Your task to perform on an android device: delete browsing data in the chrome app Image 0: 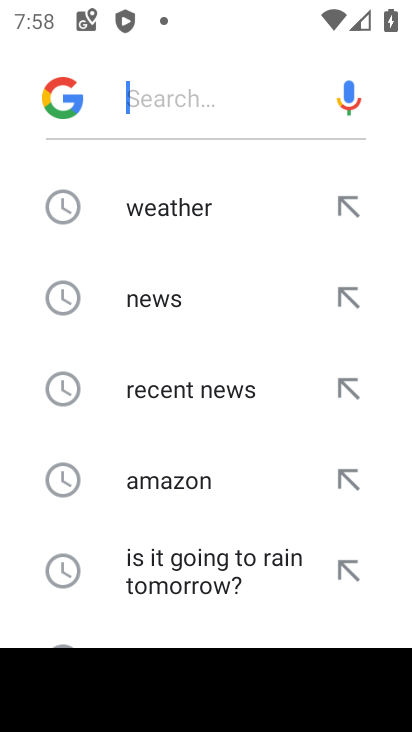
Step 0: press home button
Your task to perform on an android device: delete browsing data in the chrome app Image 1: 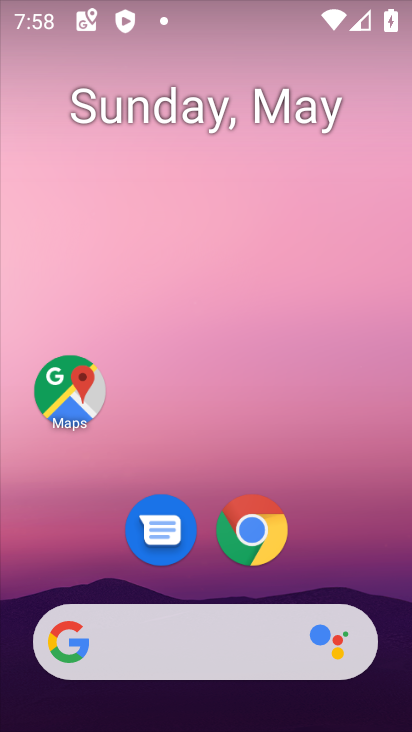
Step 1: click (248, 534)
Your task to perform on an android device: delete browsing data in the chrome app Image 2: 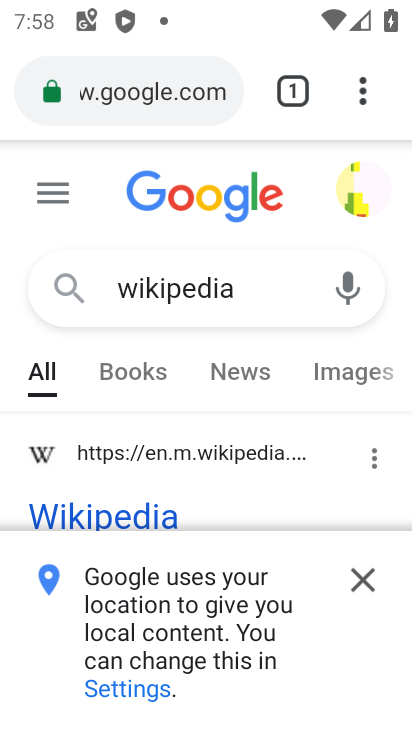
Step 2: click (362, 91)
Your task to perform on an android device: delete browsing data in the chrome app Image 3: 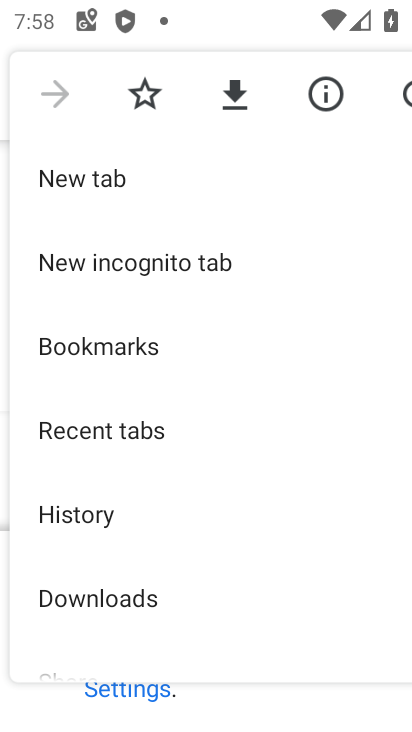
Step 3: drag from (223, 602) to (207, 51)
Your task to perform on an android device: delete browsing data in the chrome app Image 4: 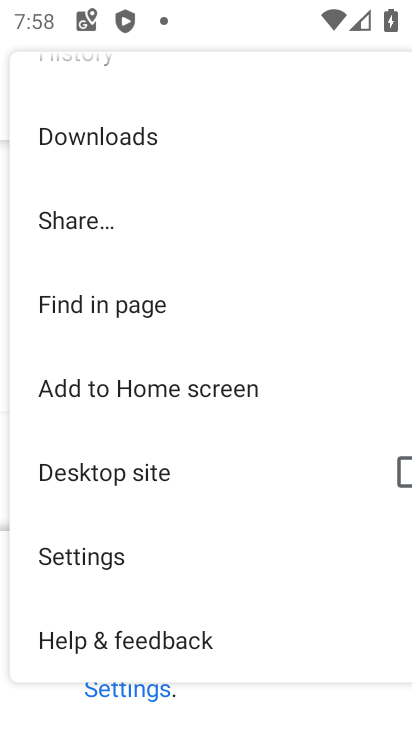
Step 4: drag from (188, 575) to (193, 183)
Your task to perform on an android device: delete browsing data in the chrome app Image 5: 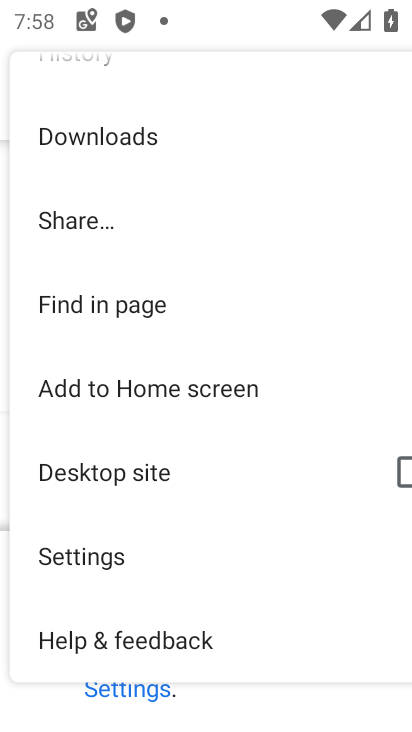
Step 5: click (82, 565)
Your task to perform on an android device: delete browsing data in the chrome app Image 6: 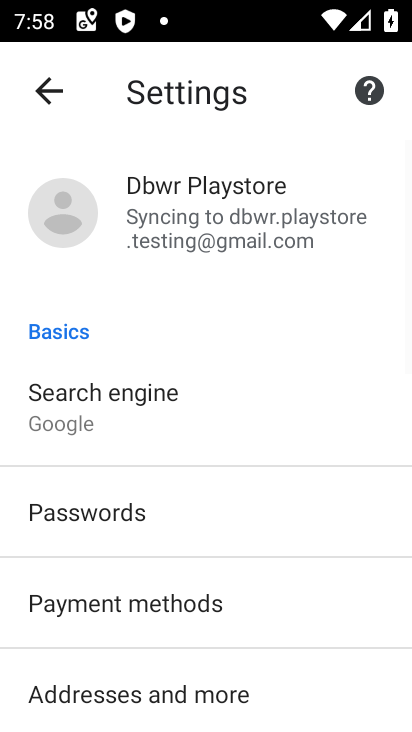
Step 6: drag from (148, 654) to (139, 185)
Your task to perform on an android device: delete browsing data in the chrome app Image 7: 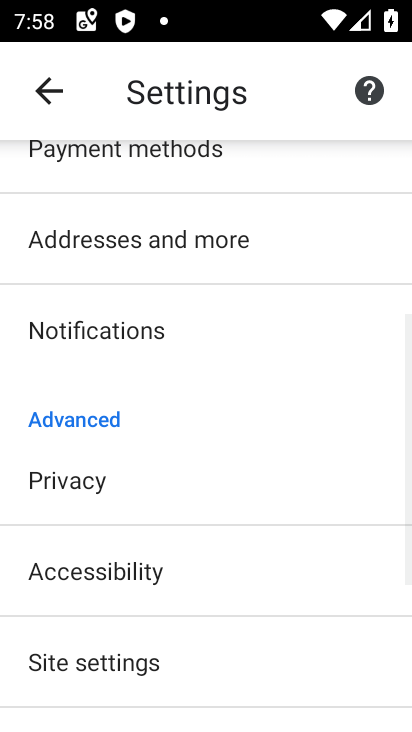
Step 7: drag from (147, 599) to (119, 161)
Your task to perform on an android device: delete browsing data in the chrome app Image 8: 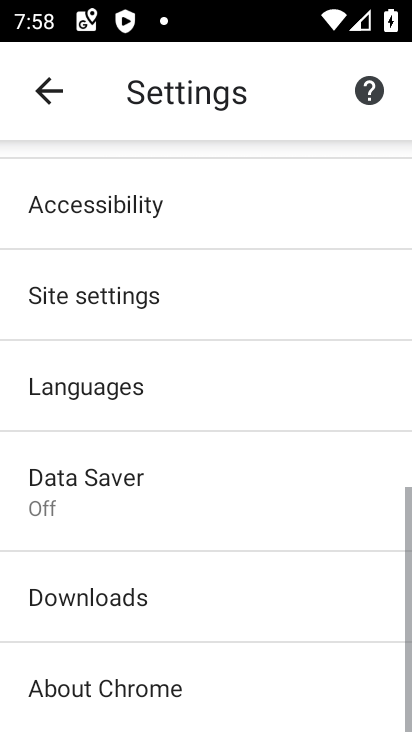
Step 8: drag from (166, 578) to (140, 227)
Your task to perform on an android device: delete browsing data in the chrome app Image 9: 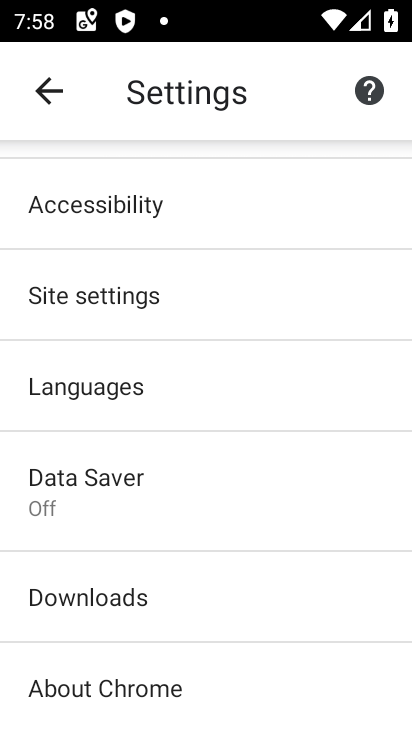
Step 9: drag from (168, 340) to (169, 561)
Your task to perform on an android device: delete browsing data in the chrome app Image 10: 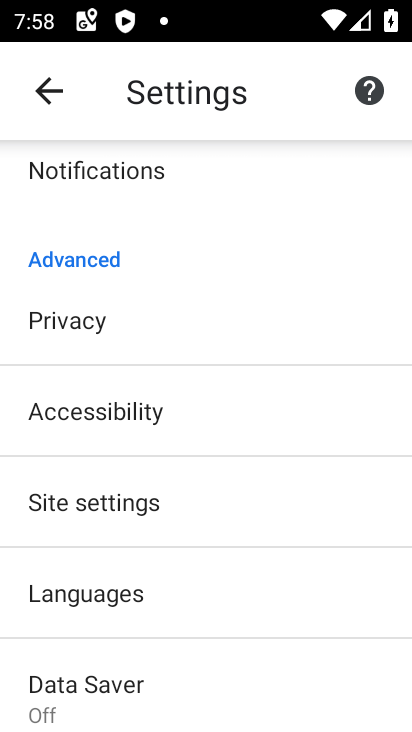
Step 10: click (47, 329)
Your task to perform on an android device: delete browsing data in the chrome app Image 11: 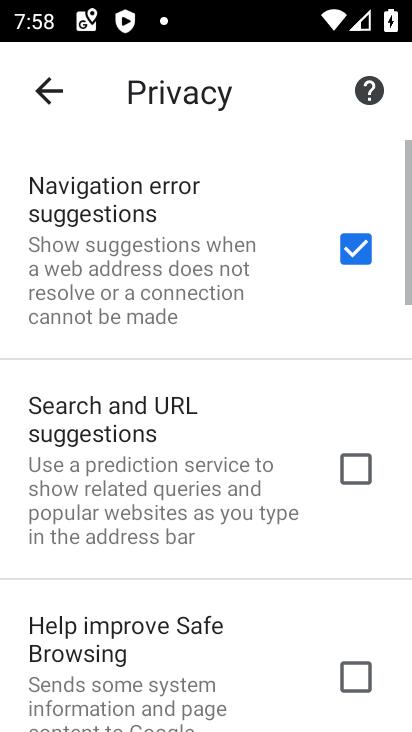
Step 11: drag from (154, 662) to (156, 170)
Your task to perform on an android device: delete browsing data in the chrome app Image 12: 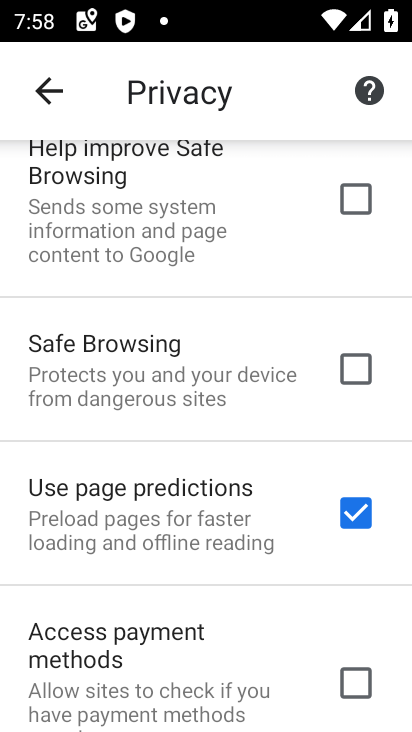
Step 12: drag from (138, 603) to (119, 148)
Your task to perform on an android device: delete browsing data in the chrome app Image 13: 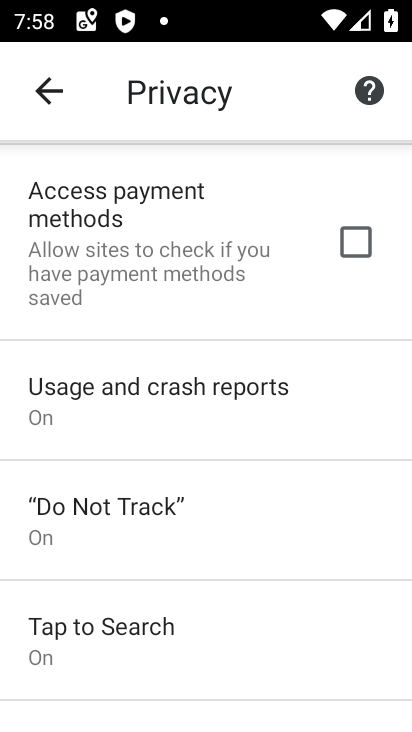
Step 13: drag from (103, 517) to (117, 101)
Your task to perform on an android device: delete browsing data in the chrome app Image 14: 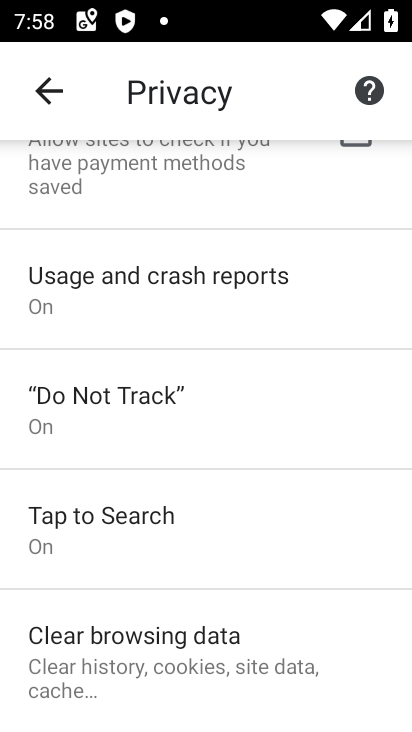
Step 14: click (109, 647)
Your task to perform on an android device: delete browsing data in the chrome app Image 15: 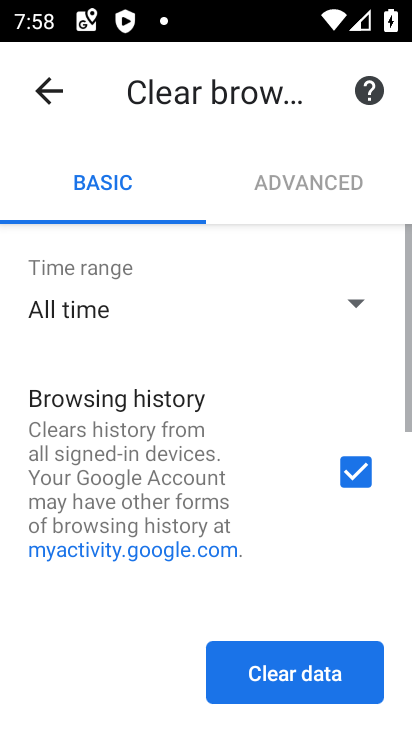
Step 15: drag from (168, 554) to (162, 168)
Your task to perform on an android device: delete browsing data in the chrome app Image 16: 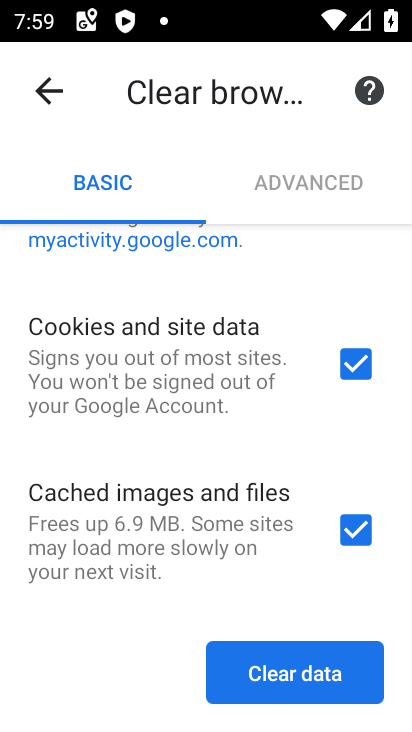
Step 16: click (336, 365)
Your task to perform on an android device: delete browsing data in the chrome app Image 17: 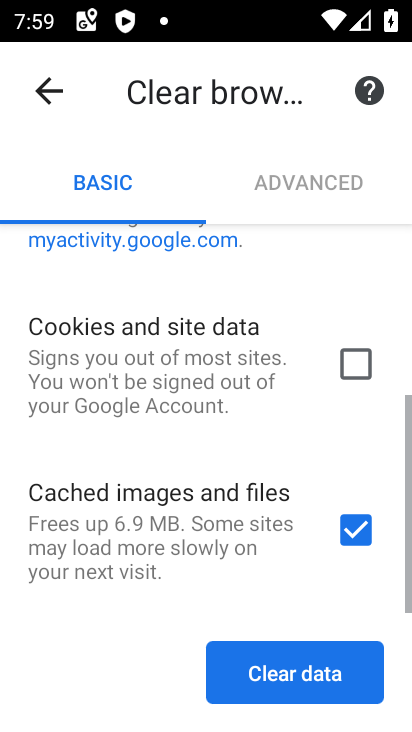
Step 17: click (357, 541)
Your task to perform on an android device: delete browsing data in the chrome app Image 18: 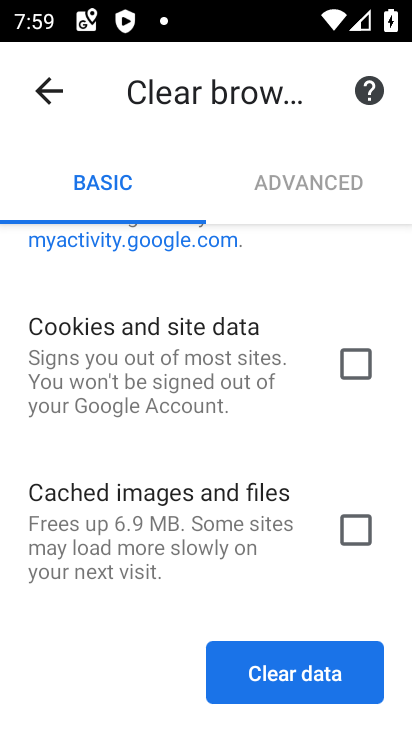
Step 18: drag from (78, 535) to (103, 322)
Your task to perform on an android device: delete browsing data in the chrome app Image 19: 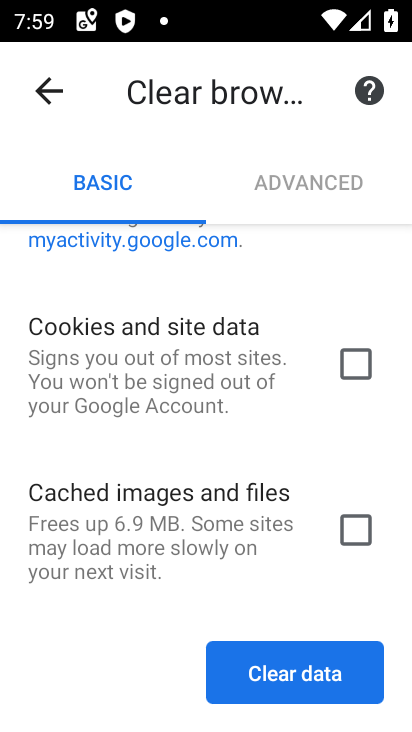
Step 19: drag from (125, 375) to (129, 555)
Your task to perform on an android device: delete browsing data in the chrome app Image 20: 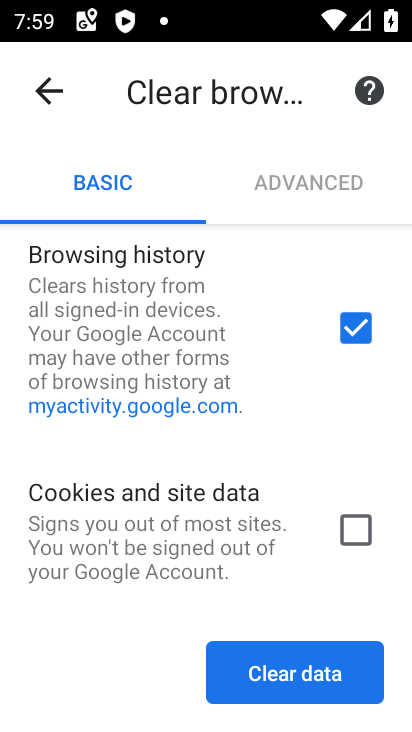
Step 20: click (273, 685)
Your task to perform on an android device: delete browsing data in the chrome app Image 21: 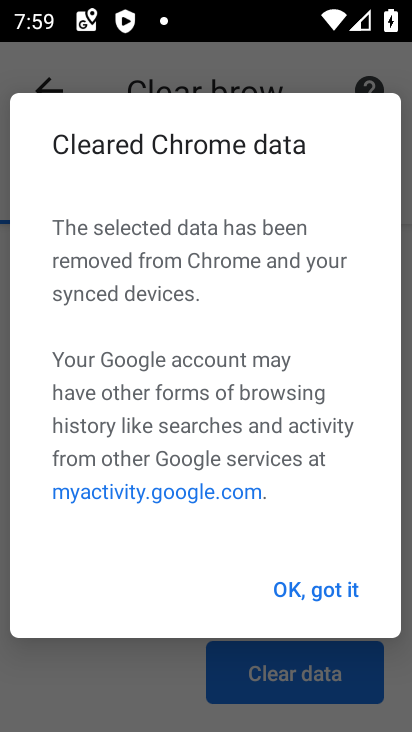
Step 21: click (306, 600)
Your task to perform on an android device: delete browsing data in the chrome app Image 22: 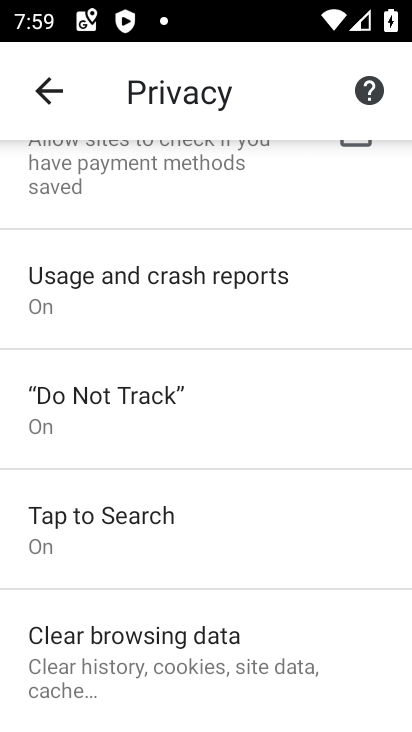
Step 22: task complete